Your task to perform on an android device: Show me recent news Image 0: 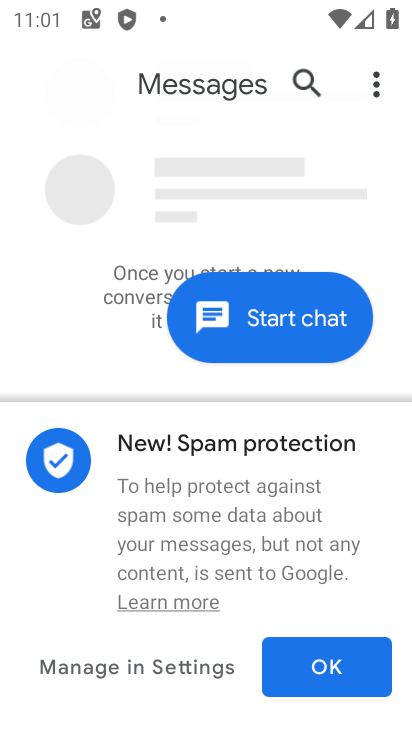
Step 0: press home button
Your task to perform on an android device: Show me recent news Image 1: 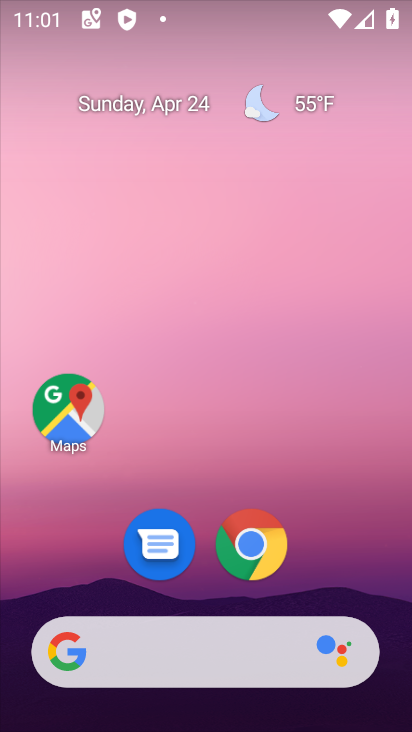
Step 1: click (255, 554)
Your task to perform on an android device: Show me recent news Image 2: 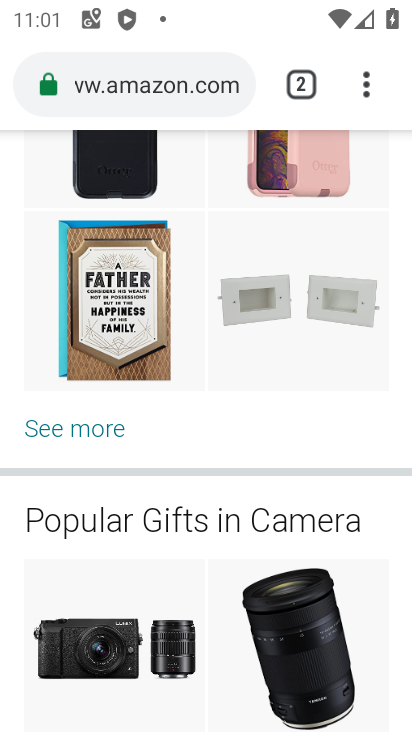
Step 2: click (306, 87)
Your task to perform on an android device: Show me recent news Image 3: 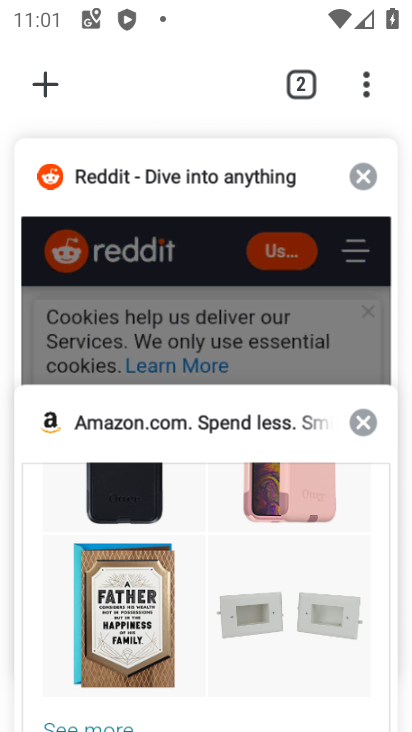
Step 3: click (46, 81)
Your task to perform on an android device: Show me recent news Image 4: 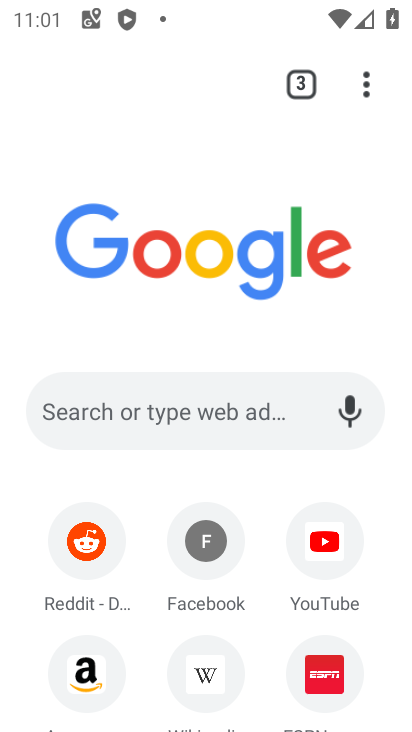
Step 4: click (121, 415)
Your task to perform on an android device: Show me recent news Image 5: 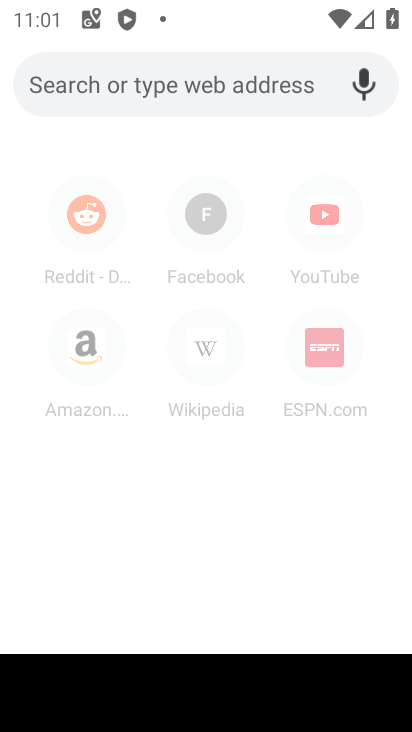
Step 5: type "recent news"
Your task to perform on an android device: Show me recent news Image 6: 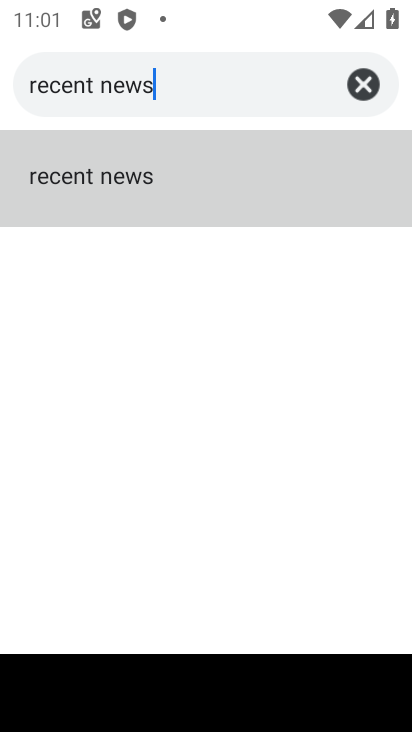
Step 6: click (86, 188)
Your task to perform on an android device: Show me recent news Image 7: 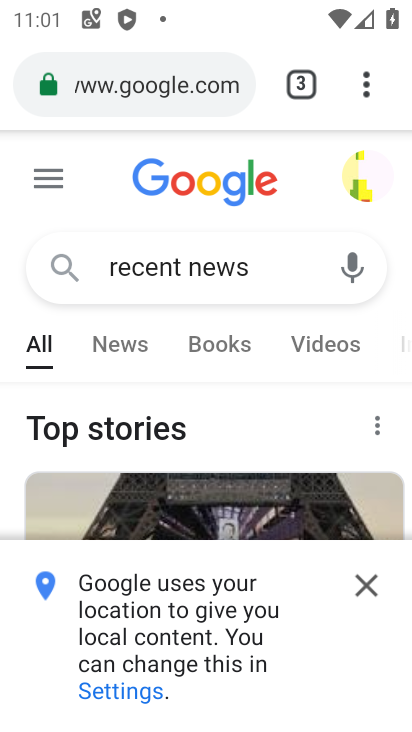
Step 7: drag from (216, 453) to (229, 218)
Your task to perform on an android device: Show me recent news Image 8: 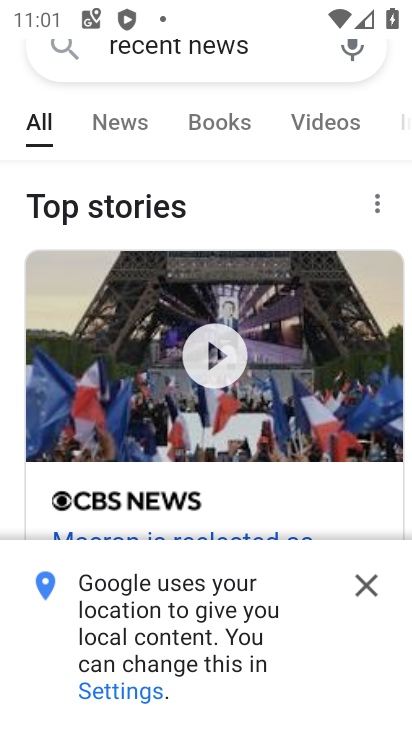
Step 8: click (366, 580)
Your task to perform on an android device: Show me recent news Image 9: 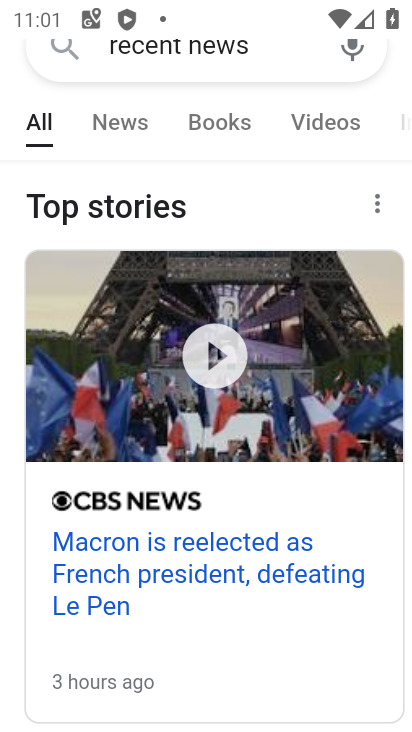
Step 9: task complete